Your task to perform on an android device: Go to Android settings Image 0: 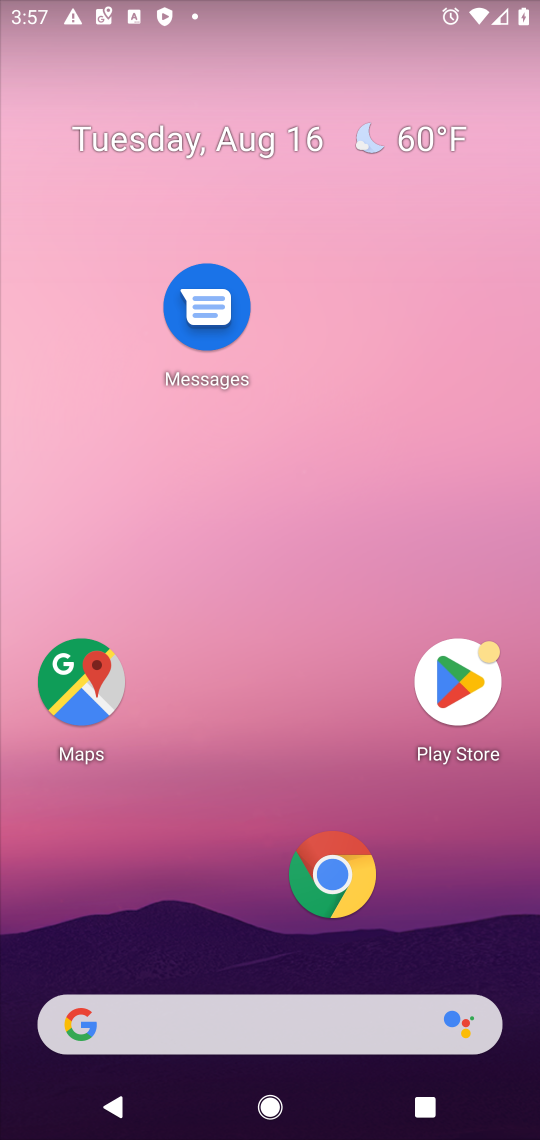
Step 0: drag from (265, 857) to (273, 150)
Your task to perform on an android device: Go to Android settings Image 1: 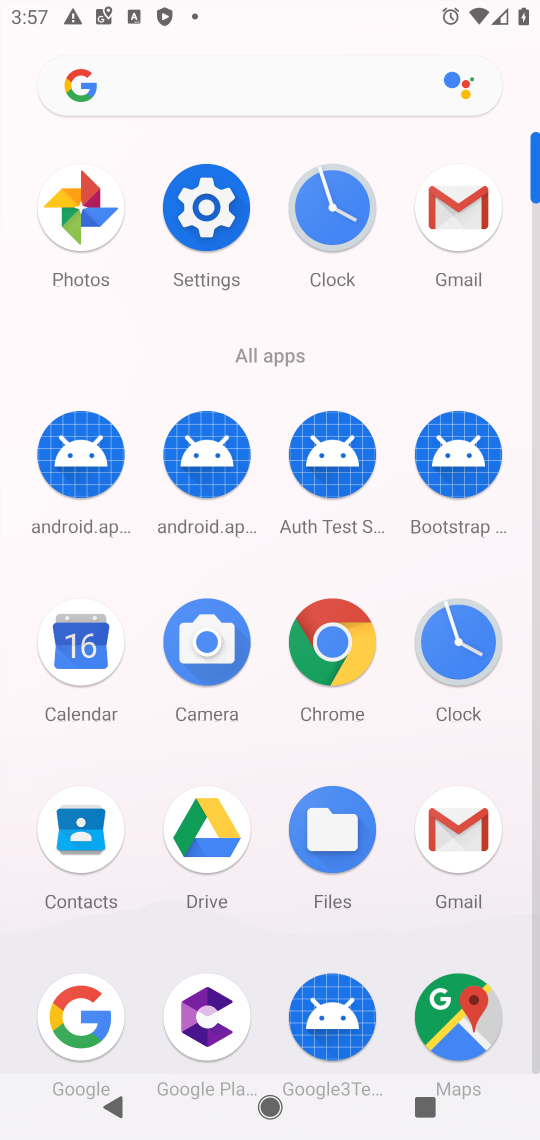
Step 1: click (215, 208)
Your task to perform on an android device: Go to Android settings Image 2: 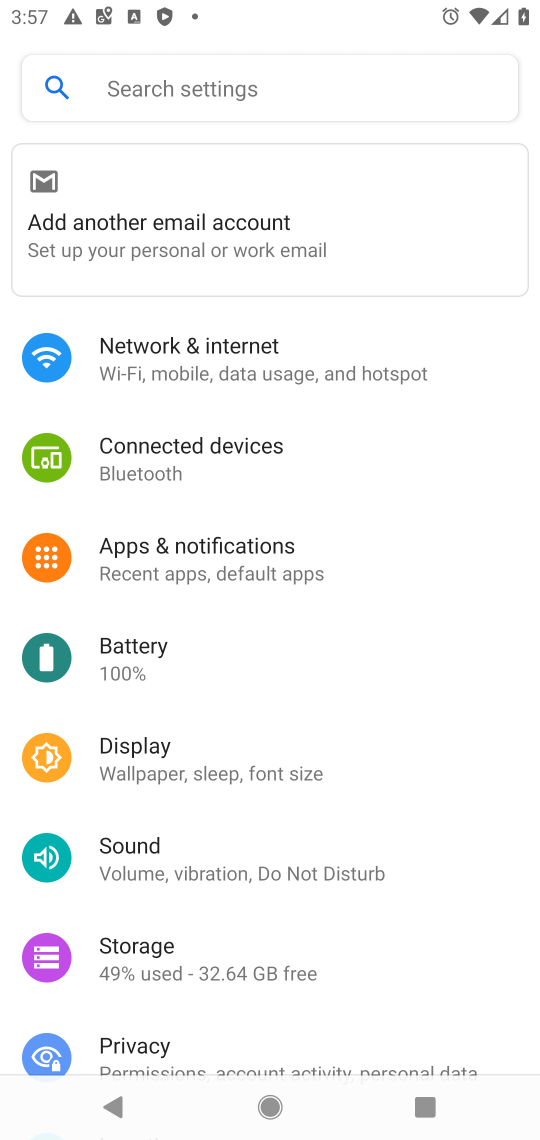
Step 2: task complete